Your task to perform on an android device: toggle sleep mode Image 0: 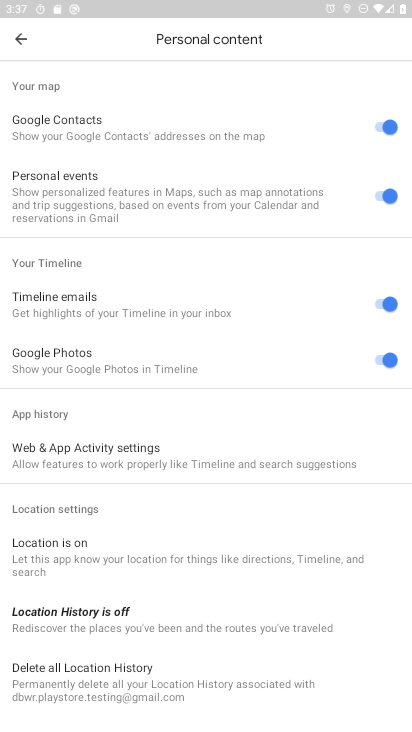
Step 0: press home button
Your task to perform on an android device: toggle sleep mode Image 1: 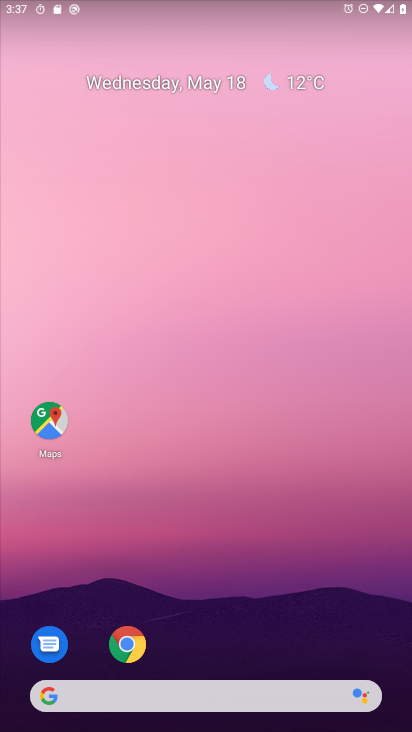
Step 1: drag from (384, 656) to (367, 99)
Your task to perform on an android device: toggle sleep mode Image 2: 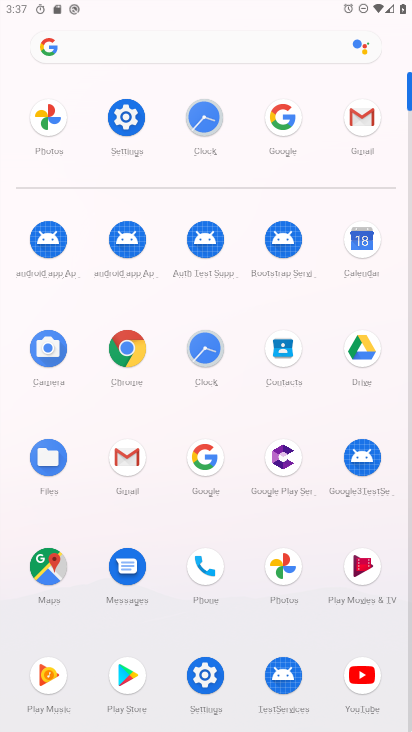
Step 2: click (115, 113)
Your task to perform on an android device: toggle sleep mode Image 3: 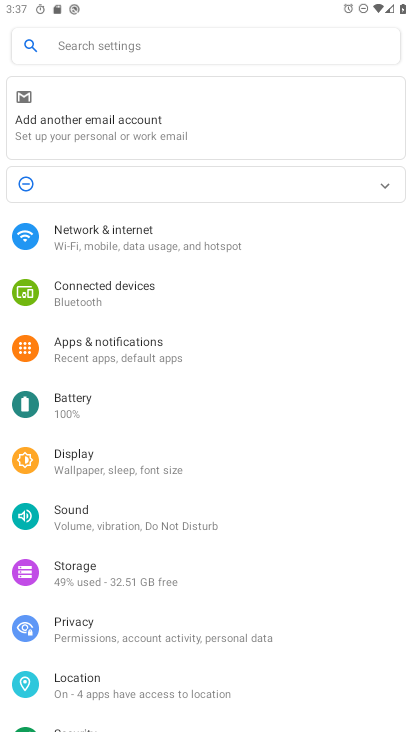
Step 3: click (70, 462)
Your task to perform on an android device: toggle sleep mode Image 4: 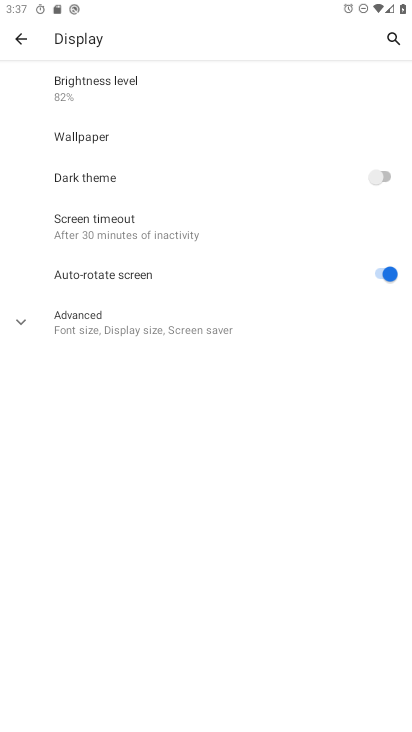
Step 4: click (83, 274)
Your task to perform on an android device: toggle sleep mode Image 5: 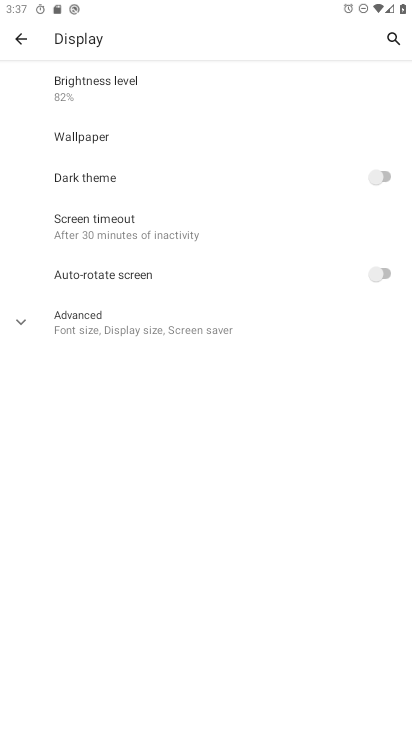
Step 5: click (89, 229)
Your task to perform on an android device: toggle sleep mode Image 6: 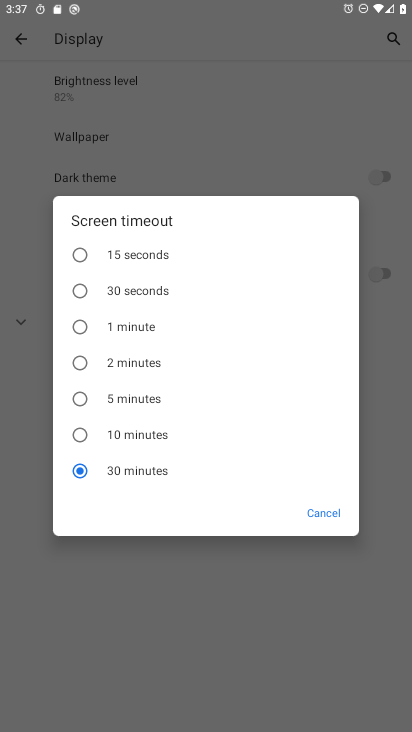
Step 6: click (77, 397)
Your task to perform on an android device: toggle sleep mode Image 7: 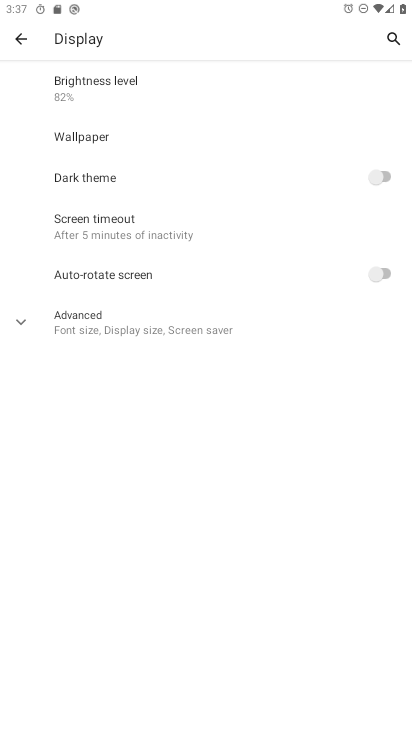
Step 7: task complete